Your task to perform on an android device: Go to notification settings Image 0: 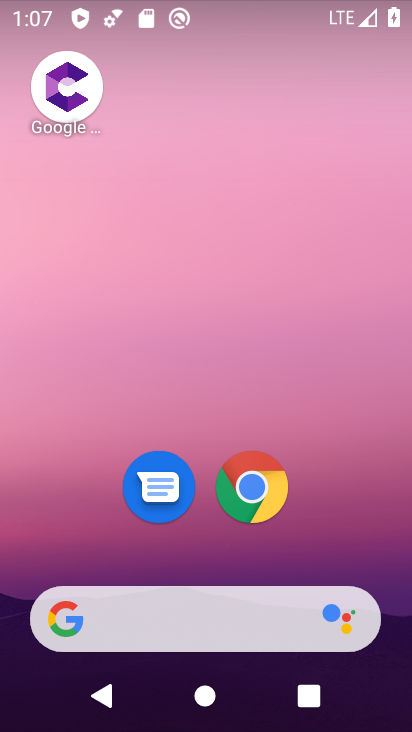
Step 0: drag from (173, 717) to (338, 0)
Your task to perform on an android device: Go to notification settings Image 1: 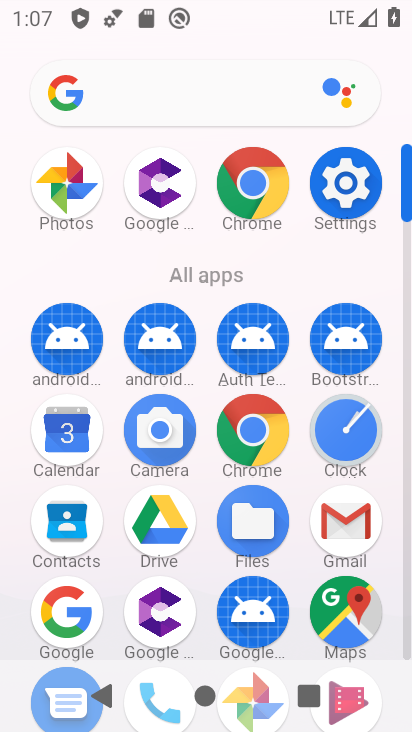
Step 1: click (350, 202)
Your task to perform on an android device: Go to notification settings Image 2: 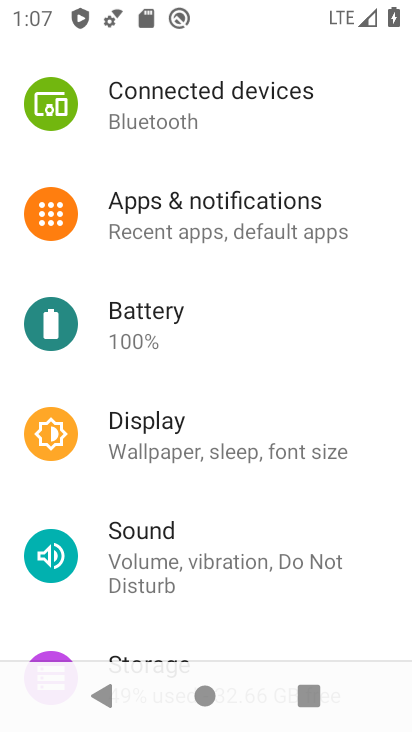
Step 2: click (248, 220)
Your task to perform on an android device: Go to notification settings Image 3: 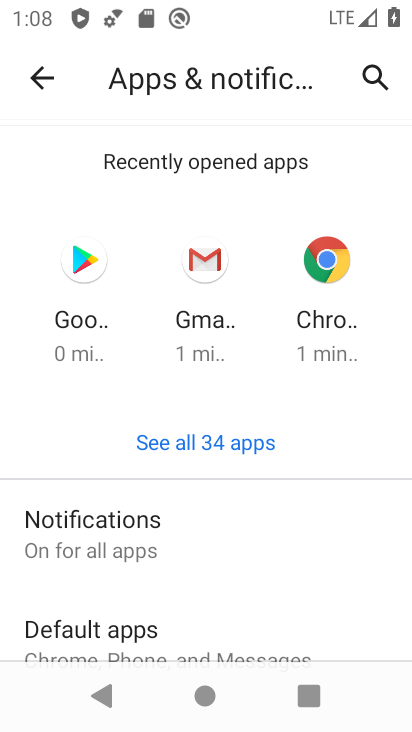
Step 3: click (250, 557)
Your task to perform on an android device: Go to notification settings Image 4: 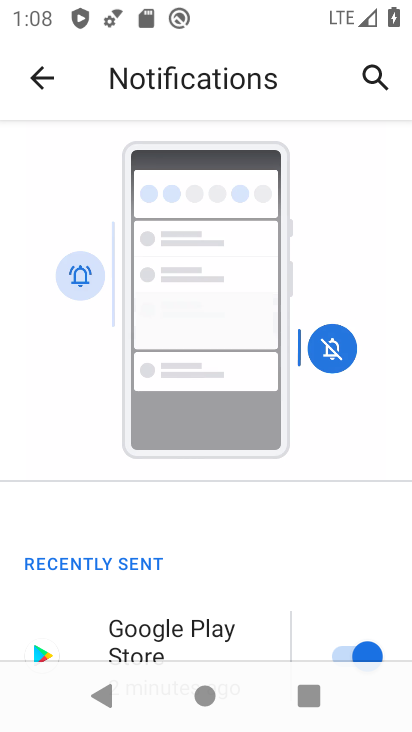
Step 4: task complete